Your task to perform on an android device: delete browsing data in the chrome app Image 0: 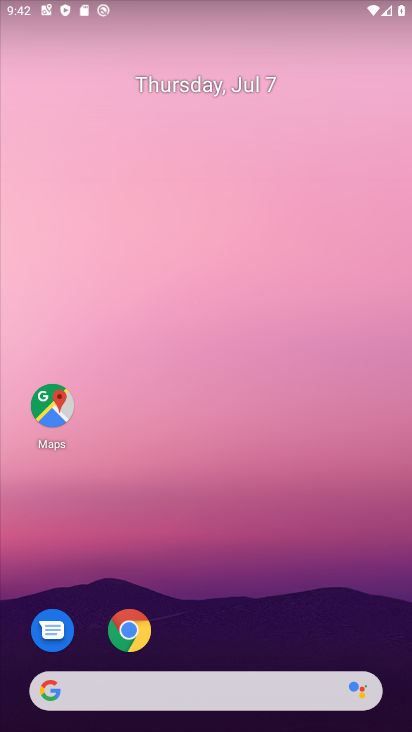
Step 0: click (133, 620)
Your task to perform on an android device: delete browsing data in the chrome app Image 1: 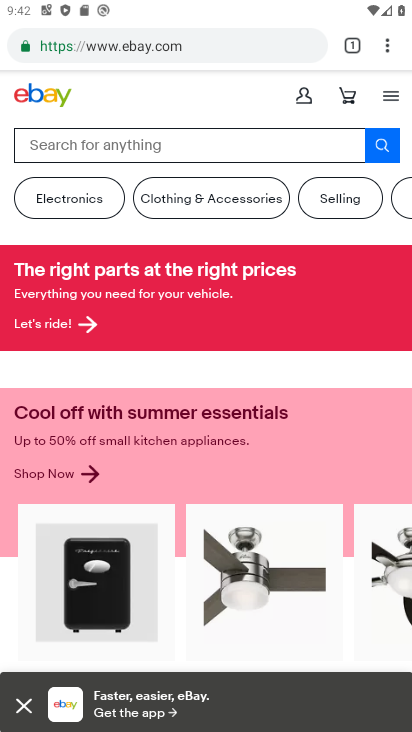
Step 1: click (393, 42)
Your task to perform on an android device: delete browsing data in the chrome app Image 2: 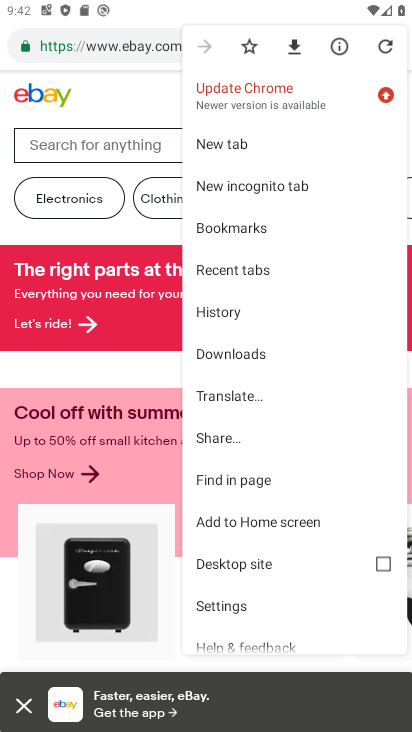
Step 2: click (237, 305)
Your task to perform on an android device: delete browsing data in the chrome app Image 3: 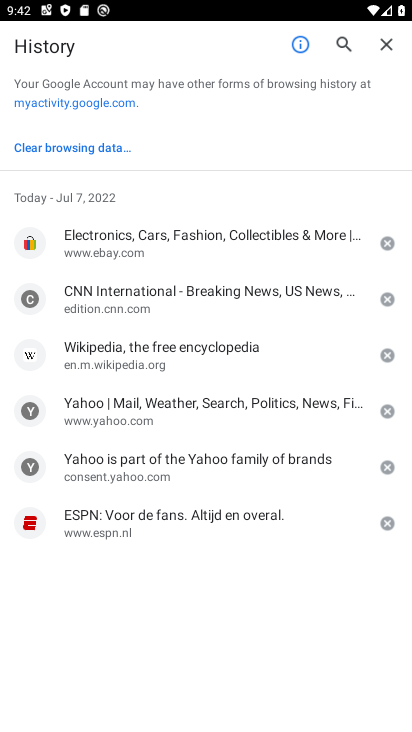
Step 3: click (98, 143)
Your task to perform on an android device: delete browsing data in the chrome app Image 4: 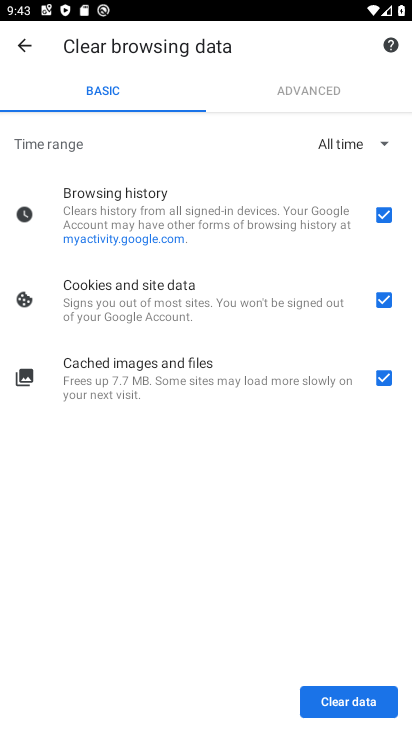
Step 4: click (337, 697)
Your task to perform on an android device: delete browsing data in the chrome app Image 5: 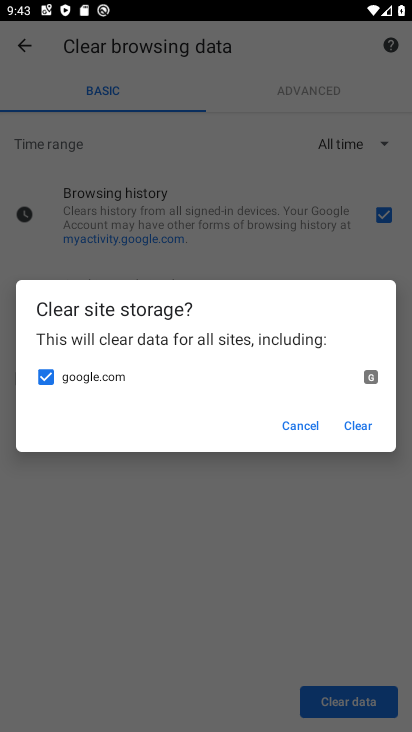
Step 5: click (362, 422)
Your task to perform on an android device: delete browsing data in the chrome app Image 6: 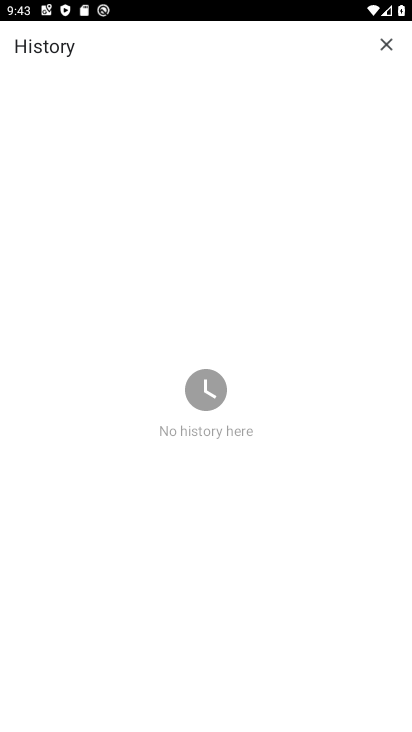
Step 6: task complete